Your task to perform on an android device: Open calendar and show me the fourth week of next month Image 0: 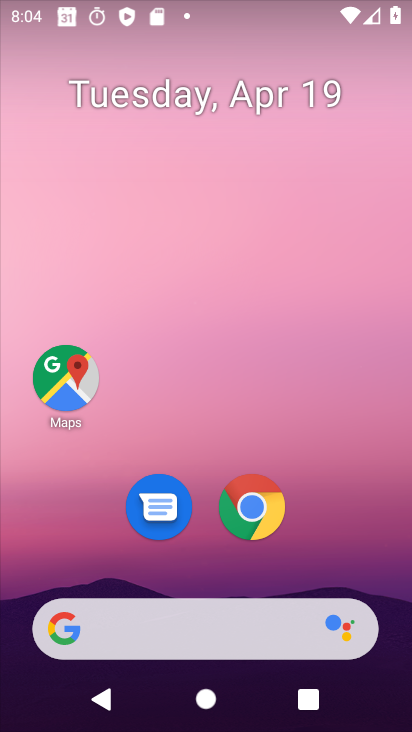
Step 0: drag from (324, 434) to (280, 71)
Your task to perform on an android device: Open calendar and show me the fourth week of next month Image 1: 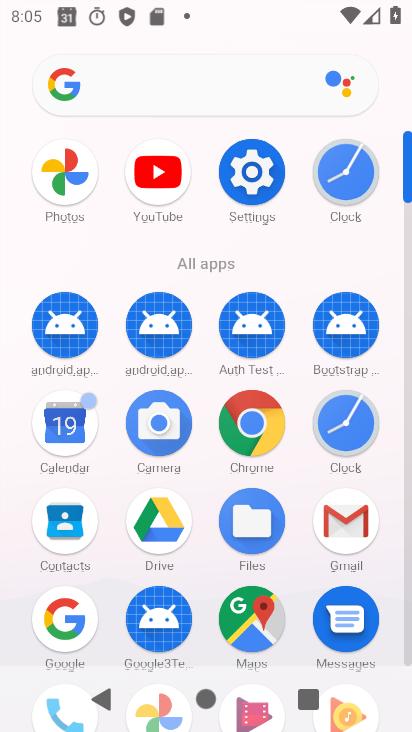
Step 1: click (77, 426)
Your task to perform on an android device: Open calendar and show me the fourth week of next month Image 2: 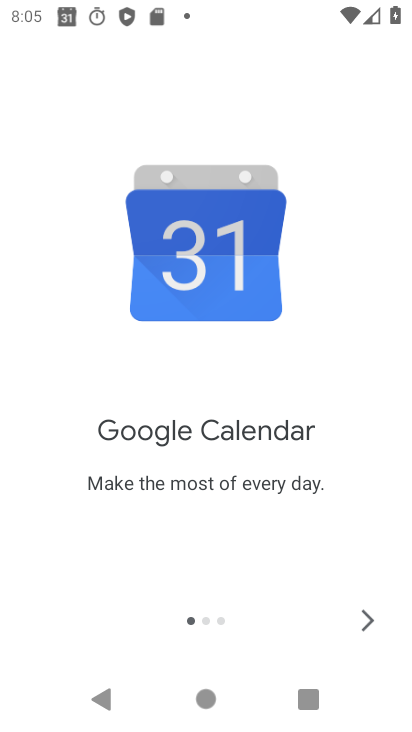
Step 2: click (368, 619)
Your task to perform on an android device: Open calendar and show me the fourth week of next month Image 3: 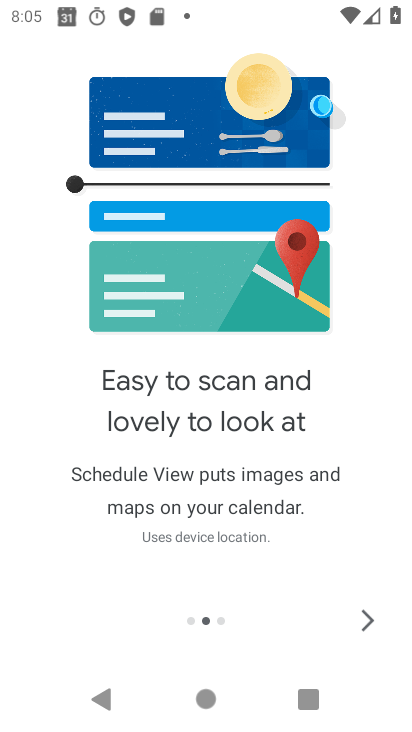
Step 3: click (368, 619)
Your task to perform on an android device: Open calendar and show me the fourth week of next month Image 4: 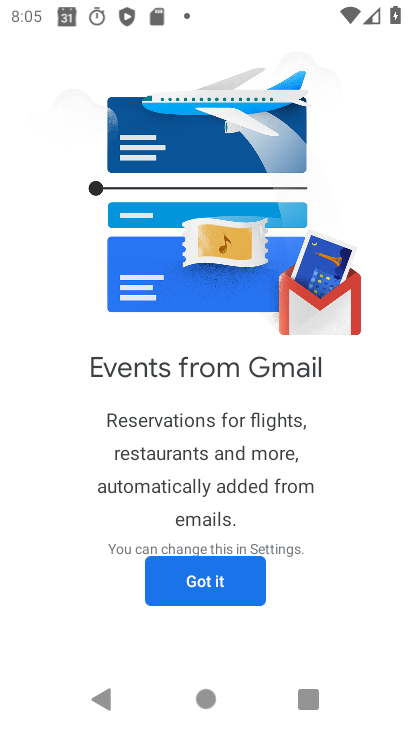
Step 4: click (205, 594)
Your task to perform on an android device: Open calendar and show me the fourth week of next month Image 5: 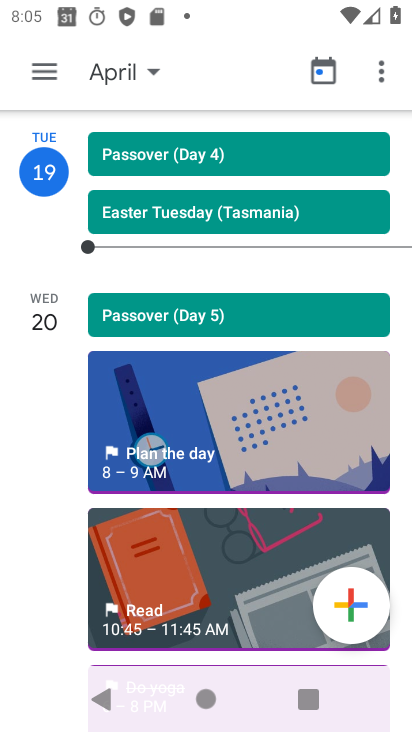
Step 5: click (151, 65)
Your task to perform on an android device: Open calendar and show me the fourth week of next month Image 6: 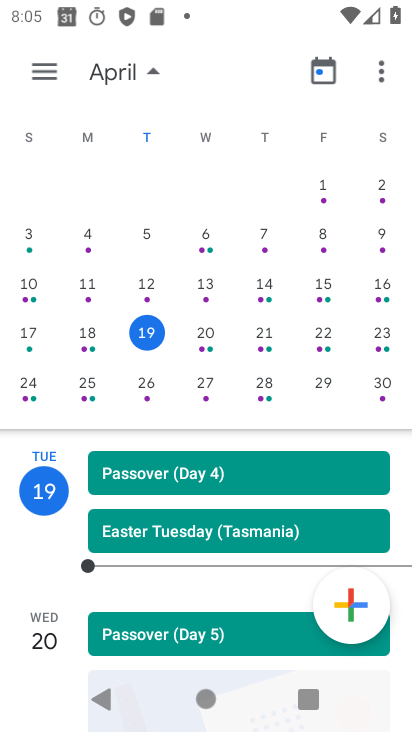
Step 6: drag from (268, 326) to (10, 328)
Your task to perform on an android device: Open calendar and show me the fourth week of next month Image 7: 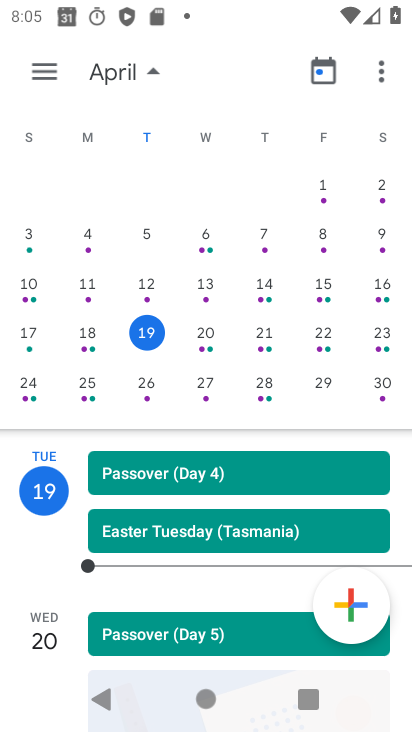
Step 7: drag from (374, 337) to (36, 362)
Your task to perform on an android device: Open calendar and show me the fourth week of next month Image 8: 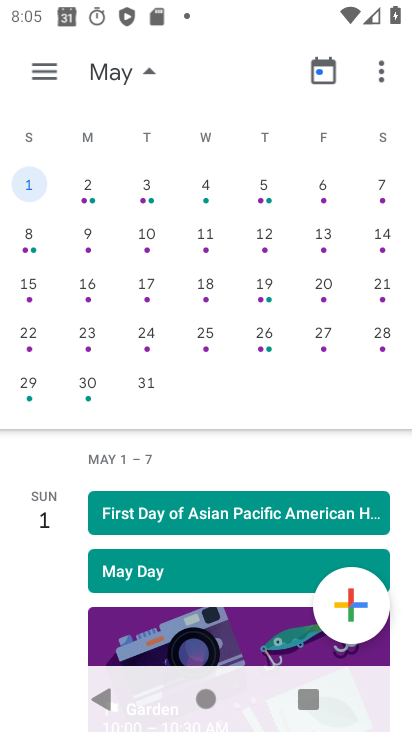
Step 8: click (30, 336)
Your task to perform on an android device: Open calendar and show me the fourth week of next month Image 9: 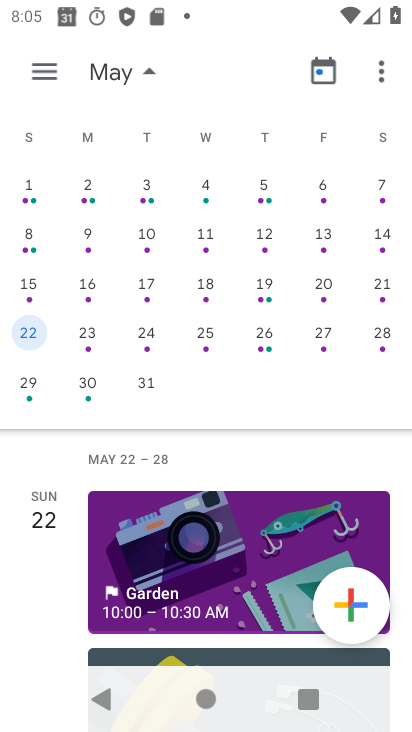
Step 9: click (48, 70)
Your task to perform on an android device: Open calendar and show me the fourth week of next month Image 10: 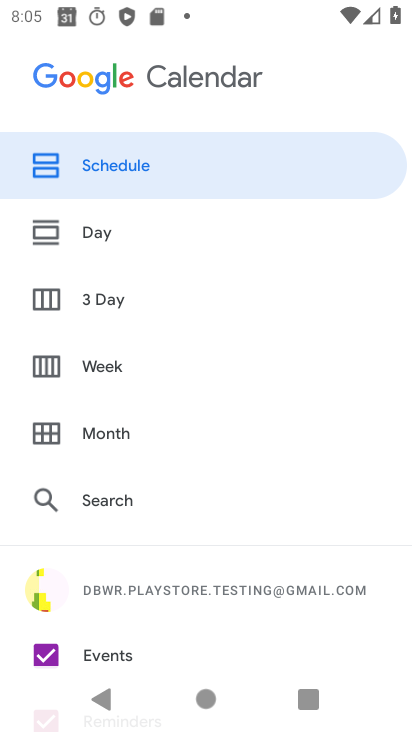
Step 10: click (90, 366)
Your task to perform on an android device: Open calendar and show me the fourth week of next month Image 11: 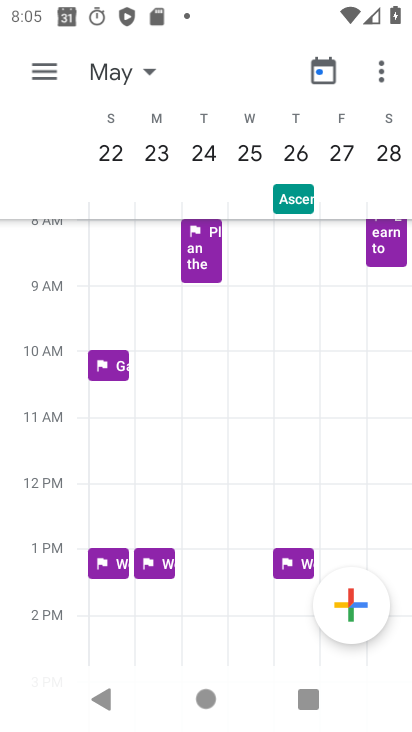
Step 11: task complete